Your task to perform on an android device: turn off translation in the chrome app Image 0: 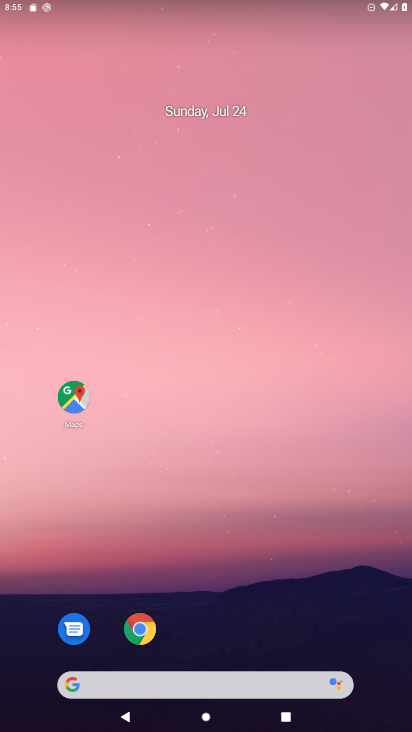
Step 0: drag from (377, 626) to (85, 31)
Your task to perform on an android device: turn off translation in the chrome app Image 1: 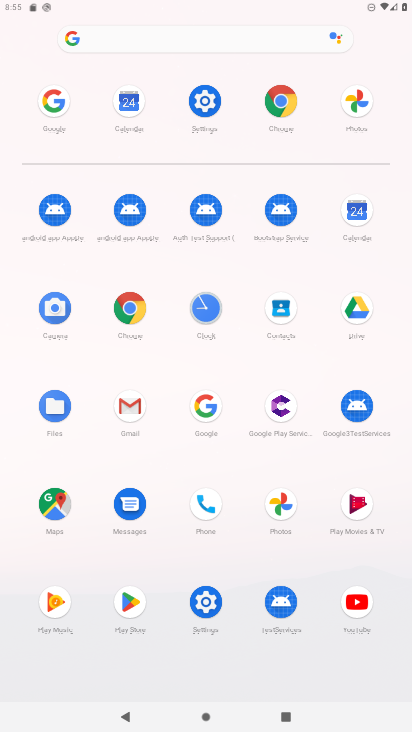
Step 1: click (132, 301)
Your task to perform on an android device: turn off translation in the chrome app Image 2: 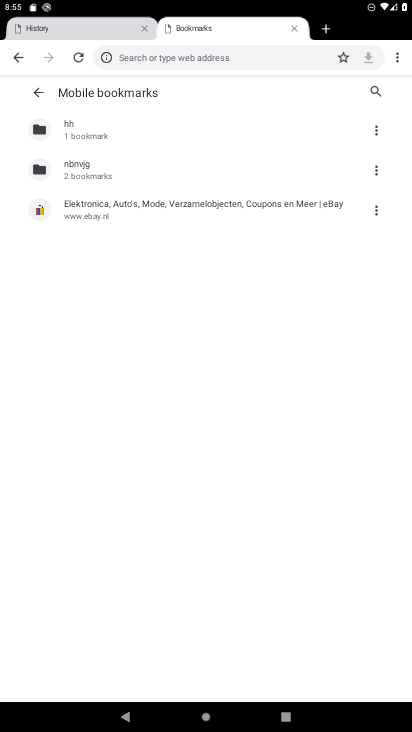
Step 2: click (400, 53)
Your task to perform on an android device: turn off translation in the chrome app Image 3: 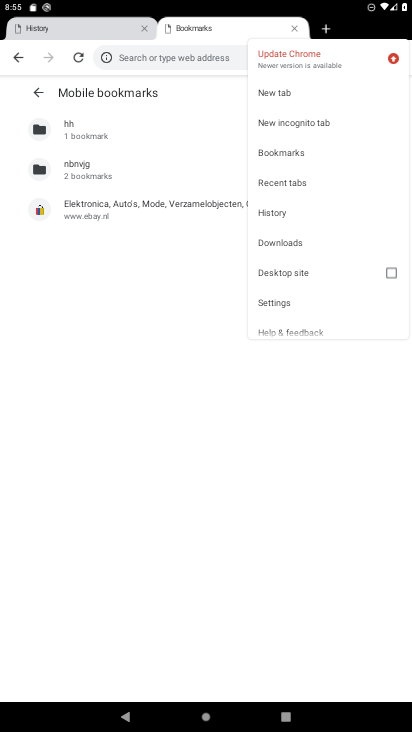
Step 3: click (267, 298)
Your task to perform on an android device: turn off translation in the chrome app Image 4: 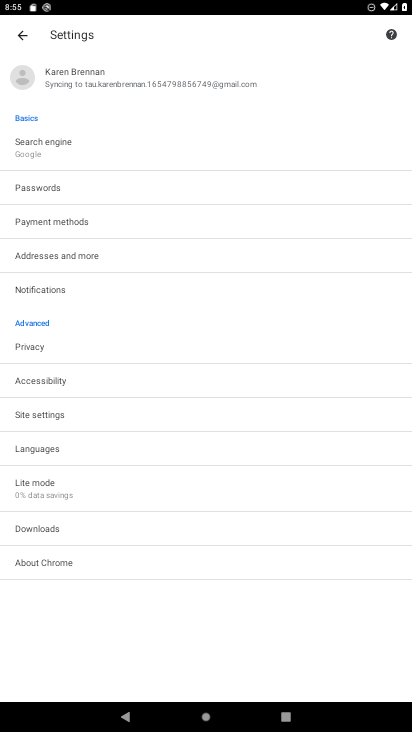
Step 4: click (23, 436)
Your task to perform on an android device: turn off translation in the chrome app Image 5: 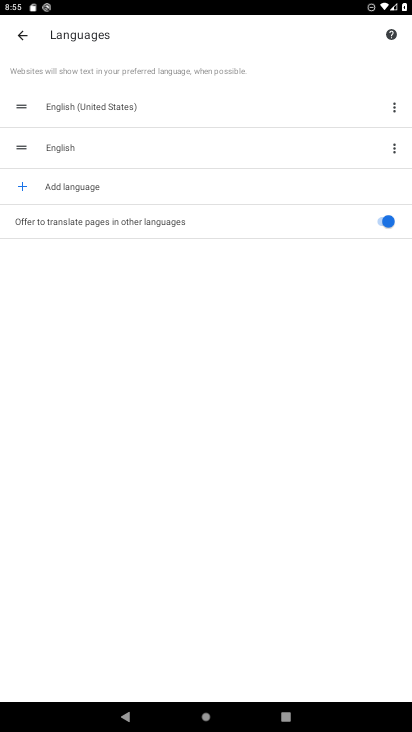
Step 5: click (220, 222)
Your task to perform on an android device: turn off translation in the chrome app Image 6: 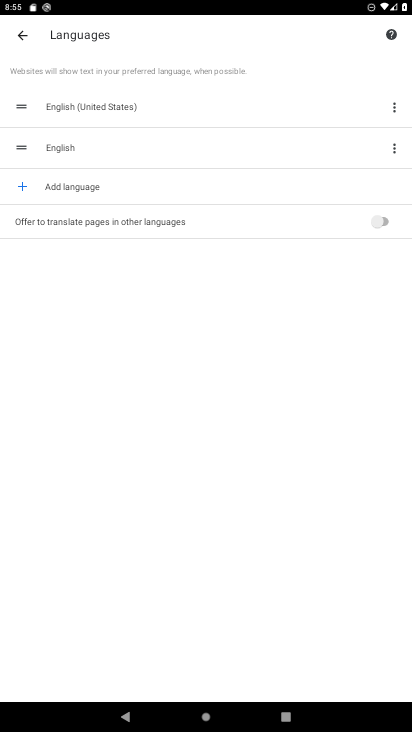
Step 6: task complete